Your task to perform on an android device: Do I have any events tomorrow? Image 0: 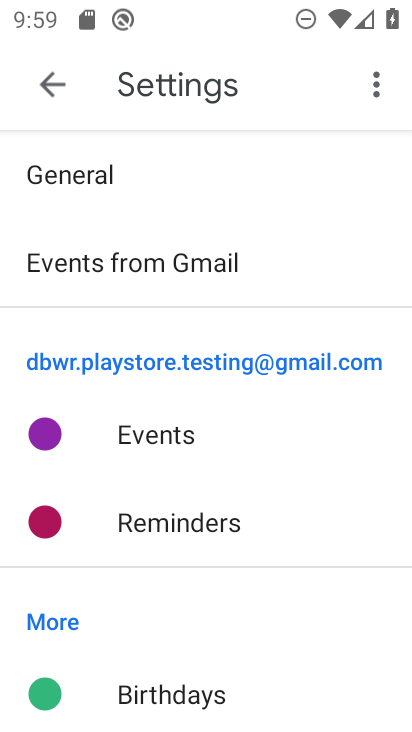
Step 0: press home button
Your task to perform on an android device: Do I have any events tomorrow? Image 1: 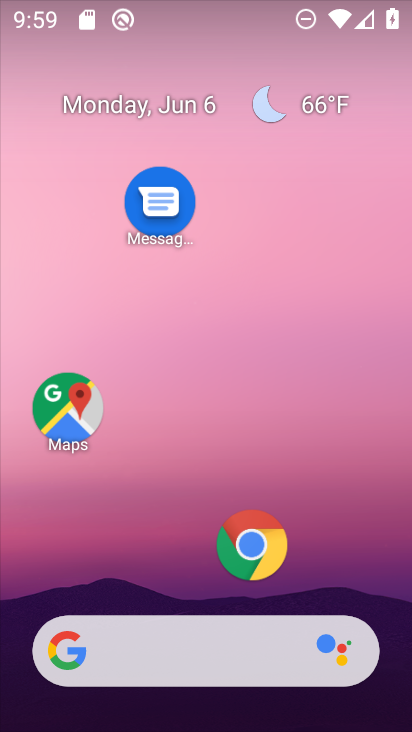
Step 1: drag from (194, 600) to (240, 213)
Your task to perform on an android device: Do I have any events tomorrow? Image 2: 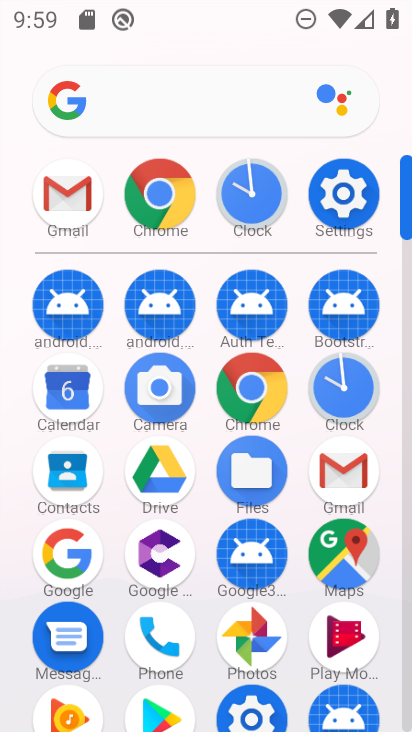
Step 2: click (52, 402)
Your task to perform on an android device: Do I have any events tomorrow? Image 3: 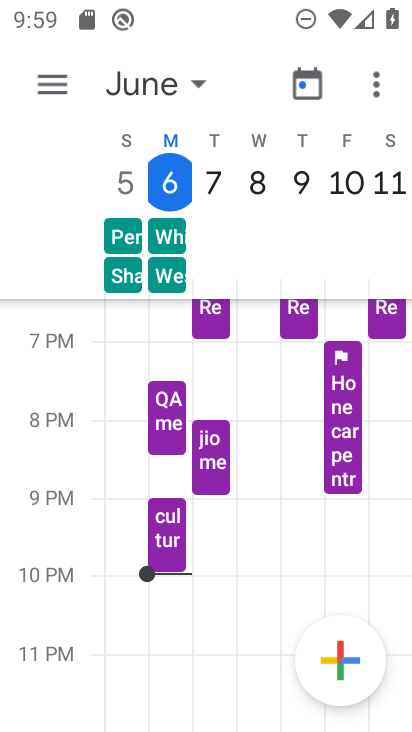
Step 3: click (198, 83)
Your task to perform on an android device: Do I have any events tomorrow? Image 4: 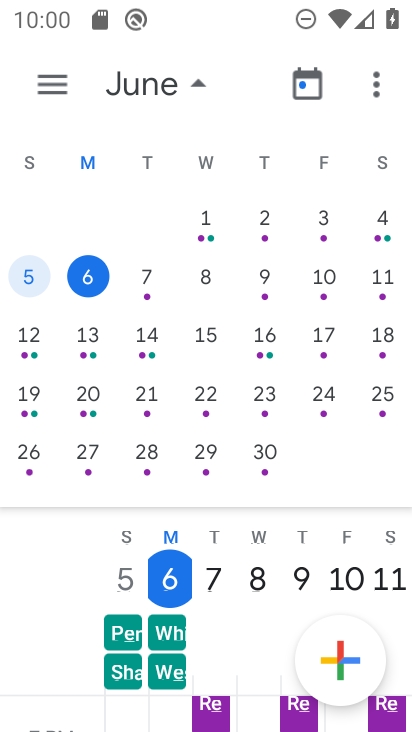
Step 4: click (146, 277)
Your task to perform on an android device: Do I have any events tomorrow? Image 5: 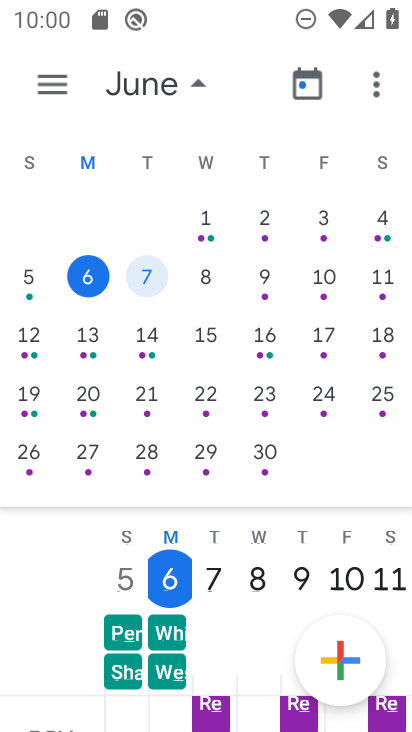
Step 5: task complete